Your task to perform on an android device: Do I have any events today? Image 0: 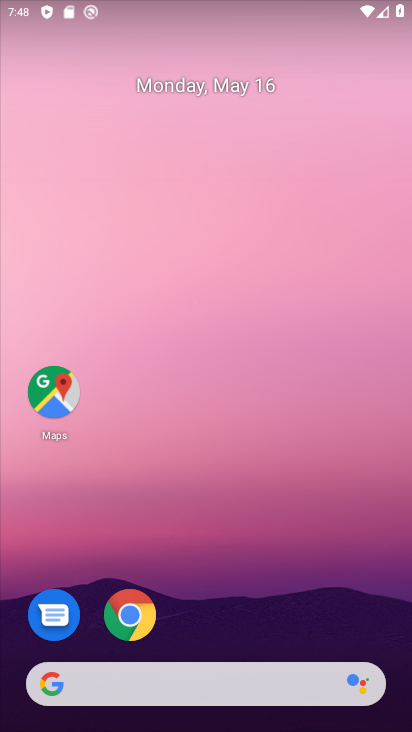
Step 0: drag from (215, 583) to (320, 146)
Your task to perform on an android device: Do I have any events today? Image 1: 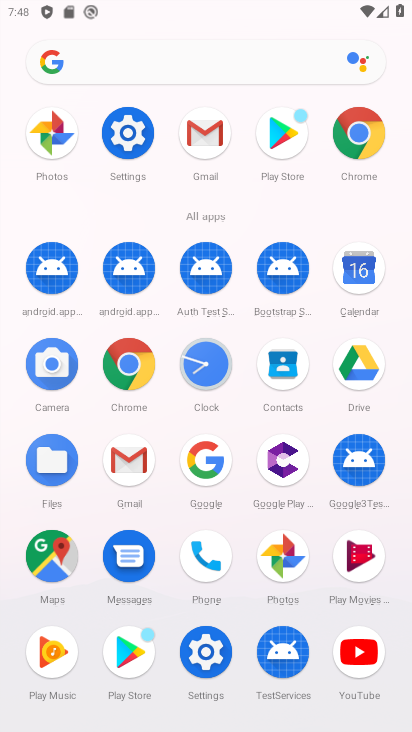
Step 1: click (376, 283)
Your task to perform on an android device: Do I have any events today? Image 2: 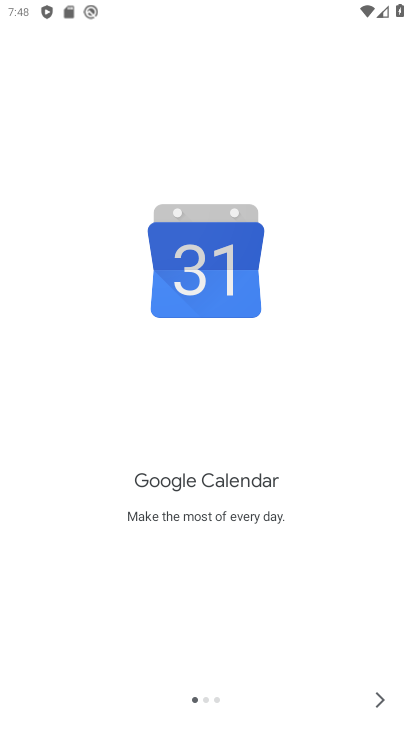
Step 2: click (377, 698)
Your task to perform on an android device: Do I have any events today? Image 3: 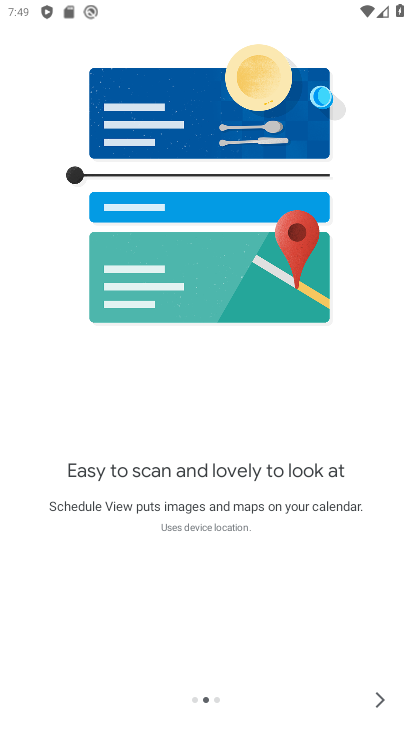
Step 3: click (381, 704)
Your task to perform on an android device: Do I have any events today? Image 4: 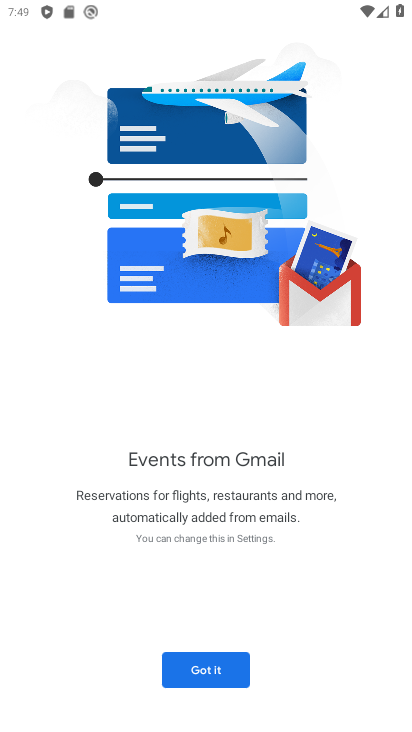
Step 4: click (225, 673)
Your task to perform on an android device: Do I have any events today? Image 5: 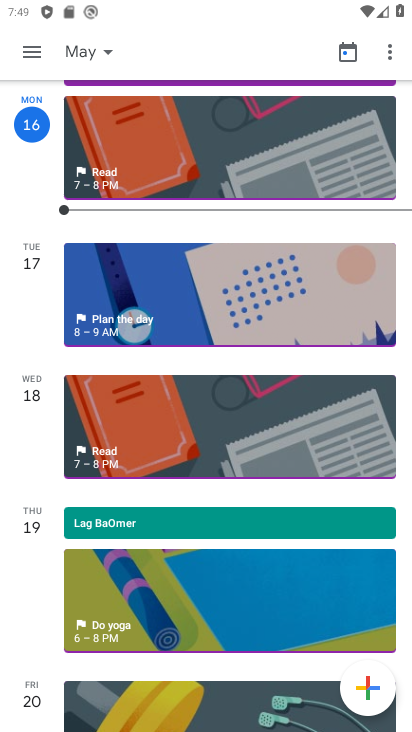
Step 5: task complete